Your task to perform on an android device: turn notification dots off Image 0: 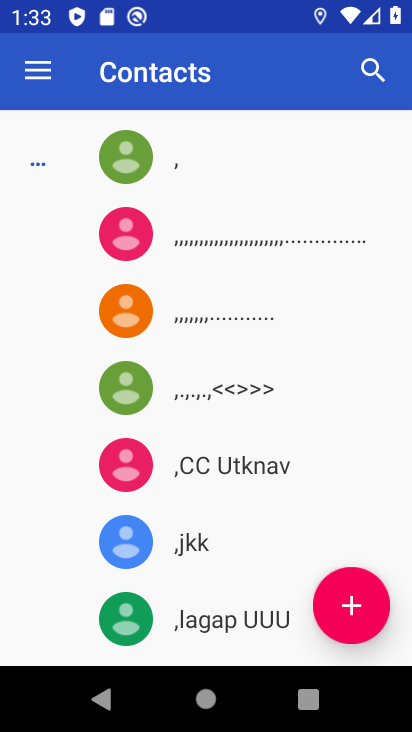
Step 0: press home button
Your task to perform on an android device: turn notification dots off Image 1: 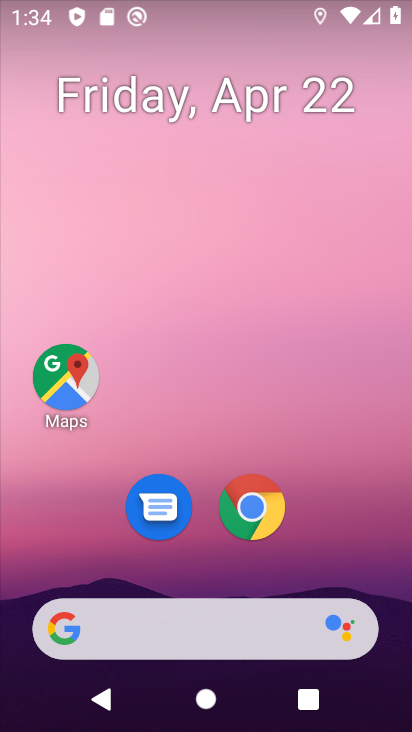
Step 1: drag from (147, 617) to (234, 83)
Your task to perform on an android device: turn notification dots off Image 2: 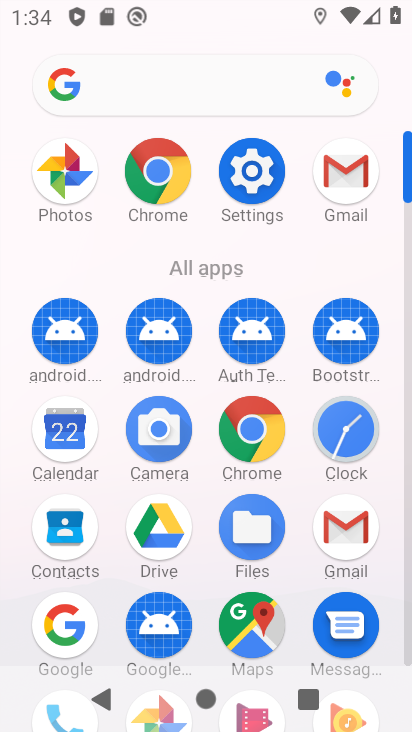
Step 2: click (258, 173)
Your task to perform on an android device: turn notification dots off Image 3: 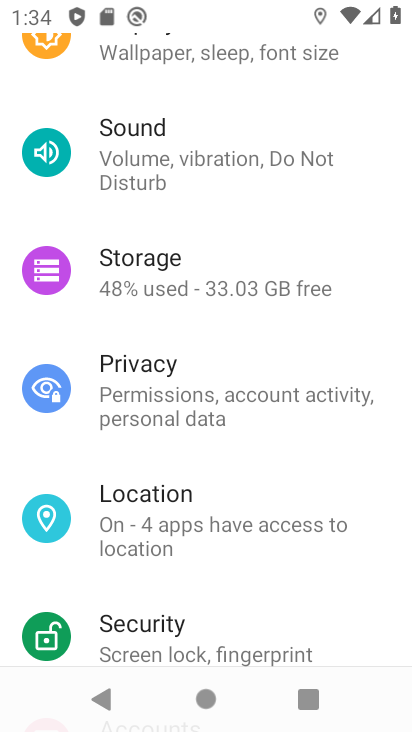
Step 3: drag from (265, 301) to (261, 550)
Your task to perform on an android device: turn notification dots off Image 4: 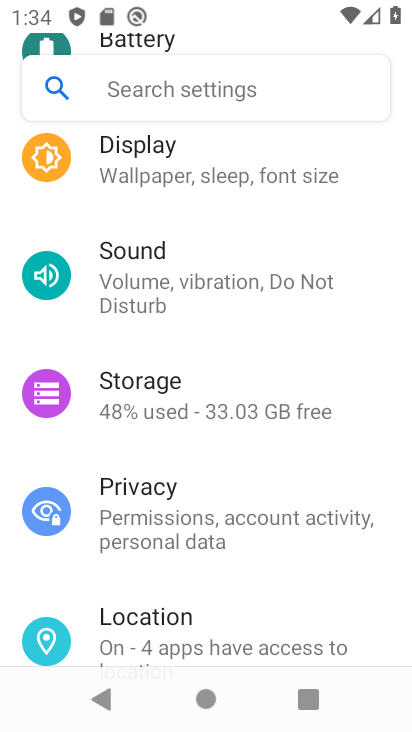
Step 4: drag from (257, 212) to (222, 635)
Your task to perform on an android device: turn notification dots off Image 5: 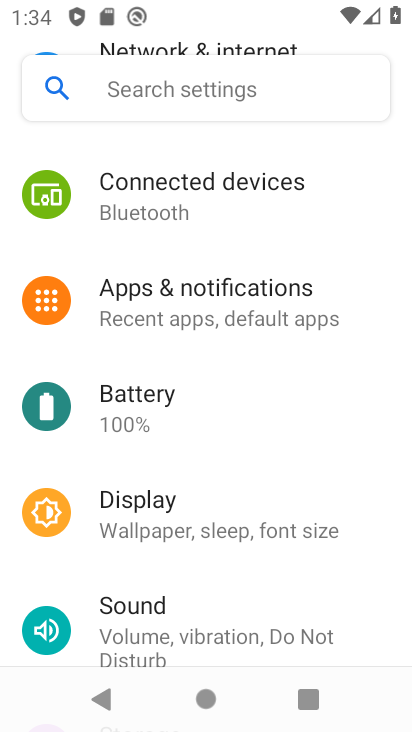
Step 5: click (243, 296)
Your task to perform on an android device: turn notification dots off Image 6: 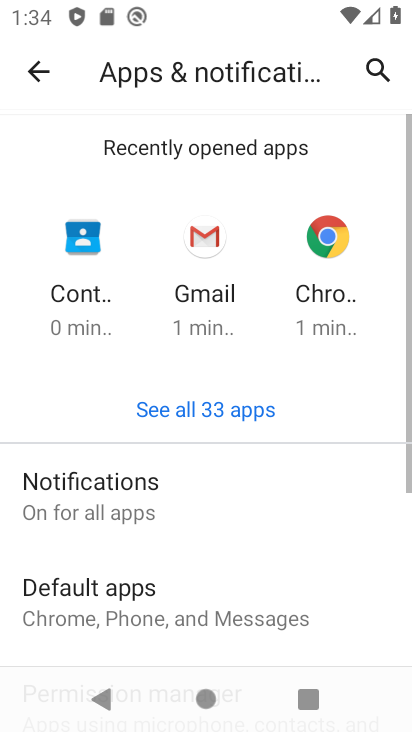
Step 6: click (125, 493)
Your task to perform on an android device: turn notification dots off Image 7: 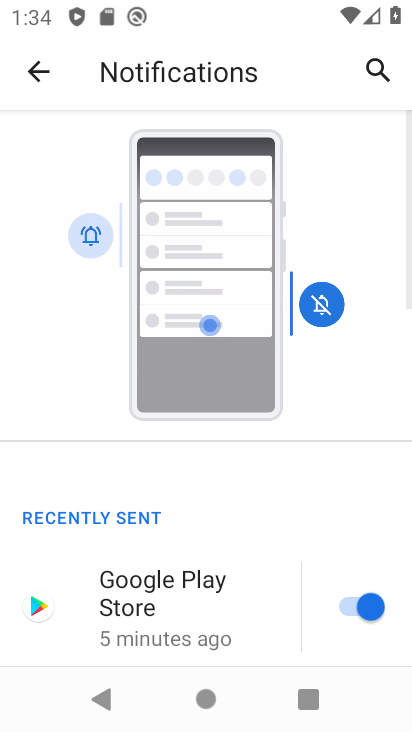
Step 7: drag from (178, 657) to (309, 149)
Your task to perform on an android device: turn notification dots off Image 8: 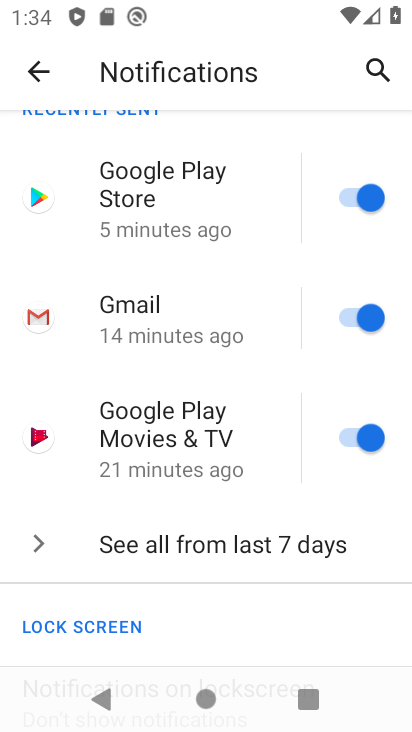
Step 8: drag from (183, 592) to (297, 147)
Your task to perform on an android device: turn notification dots off Image 9: 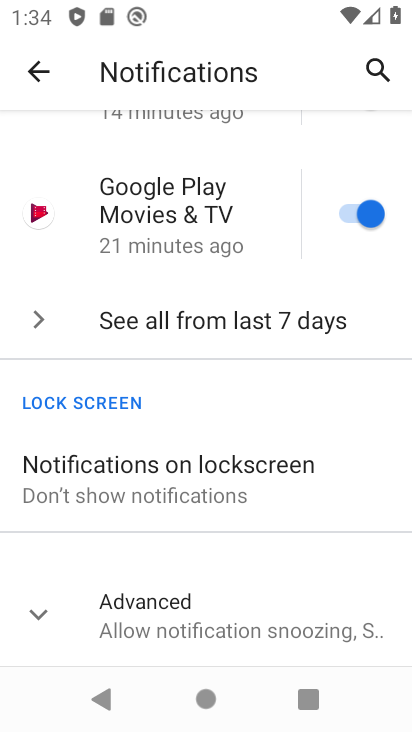
Step 9: click (184, 621)
Your task to perform on an android device: turn notification dots off Image 10: 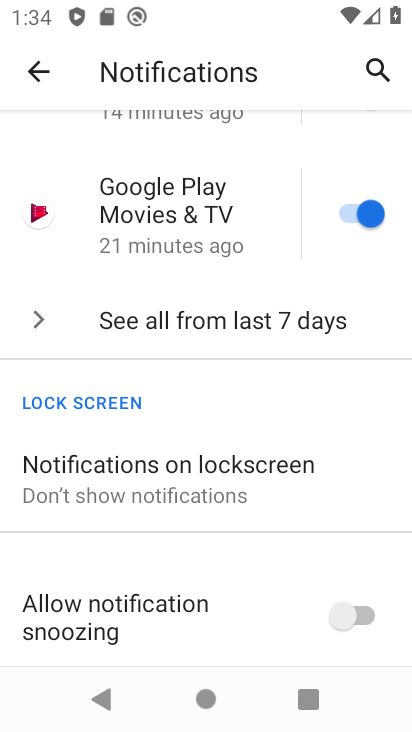
Step 10: drag from (196, 628) to (288, 337)
Your task to perform on an android device: turn notification dots off Image 11: 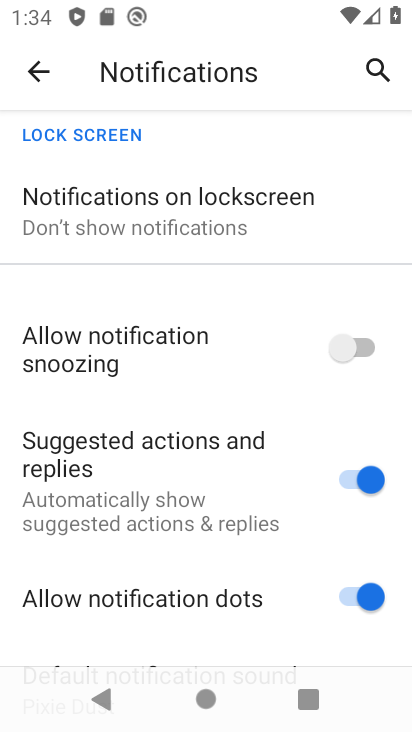
Step 11: click (347, 598)
Your task to perform on an android device: turn notification dots off Image 12: 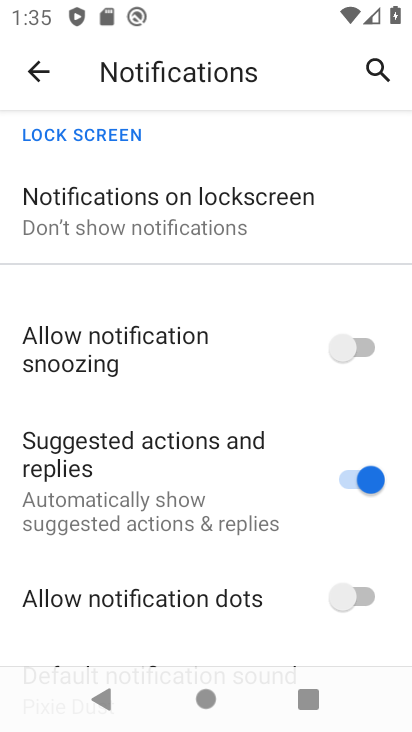
Step 12: task complete